Your task to perform on an android device: move an email to a new category in the gmail app Image 0: 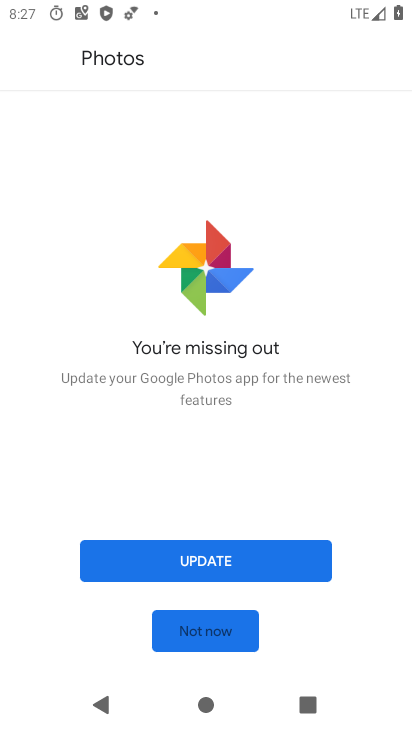
Step 0: press home button
Your task to perform on an android device: move an email to a new category in the gmail app Image 1: 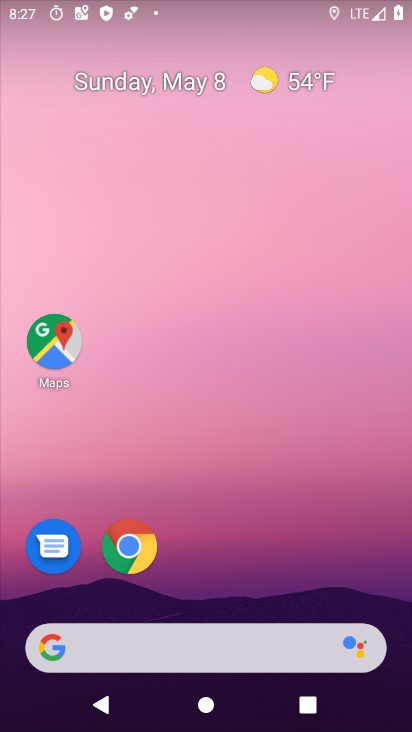
Step 1: drag from (397, 615) to (398, 166)
Your task to perform on an android device: move an email to a new category in the gmail app Image 2: 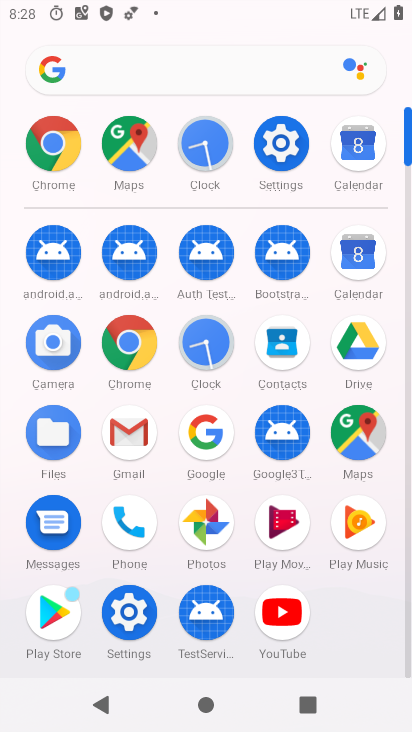
Step 2: click (130, 427)
Your task to perform on an android device: move an email to a new category in the gmail app Image 3: 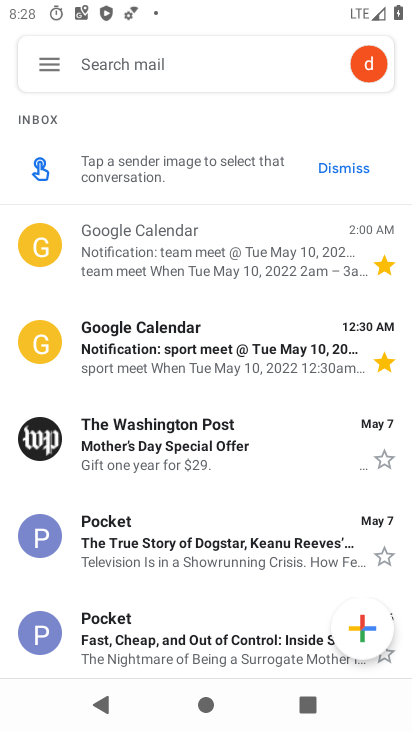
Step 3: click (400, 458)
Your task to perform on an android device: move an email to a new category in the gmail app Image 4: 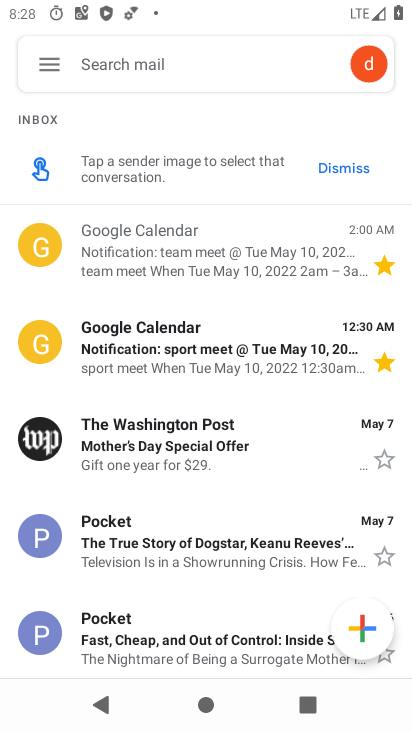
Step 4: click (385, 456)
Your task to perform on an android device: move an email to a new category in the gmail app Image 5: 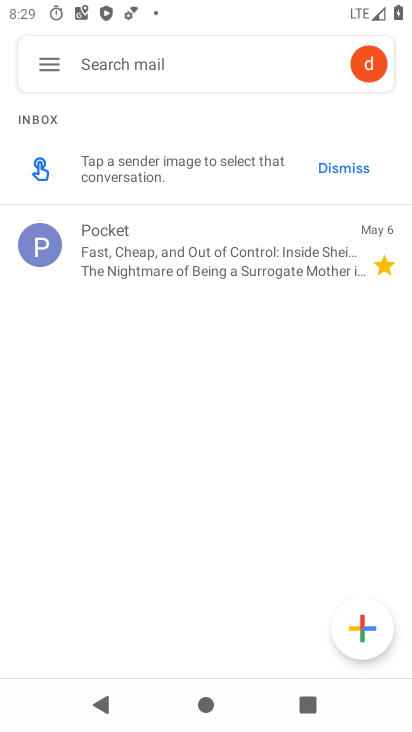
Step 5: task complete